Your task to perform on an android device: all mails in gmail Image 0: 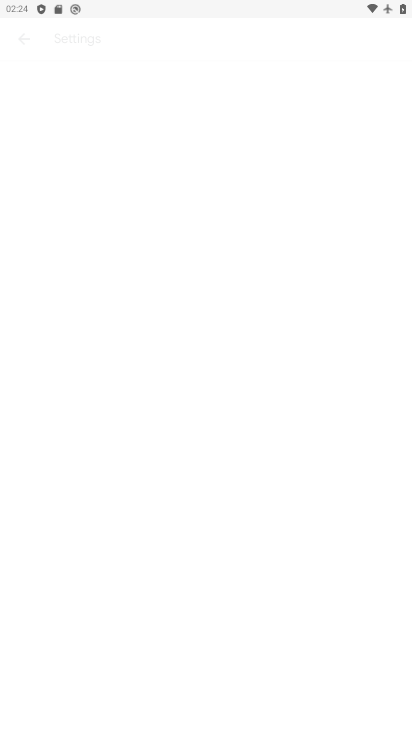
Step 0: drag from (212, 668) to (207, 414)
Your task to perform on an android device: all mails in gmail Image 1: 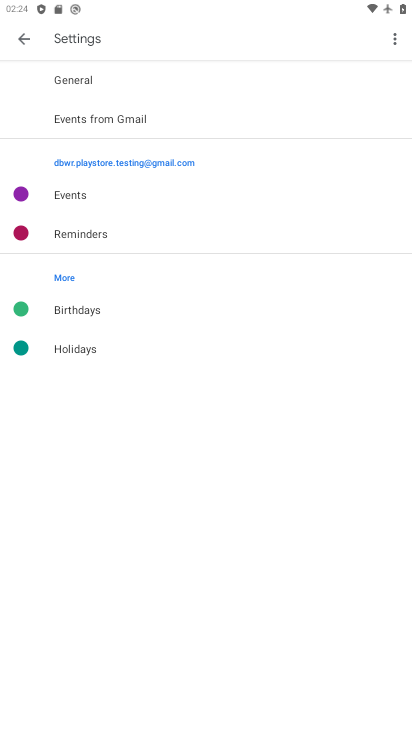
Step 1: press home button
Your task to perform on an android device: all mails in gmail Image 2: 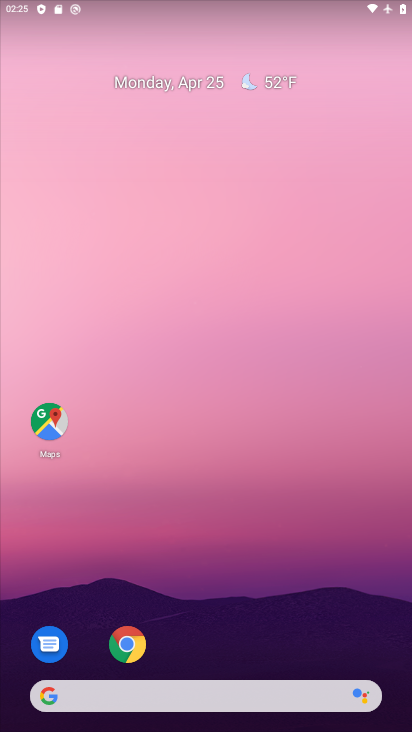
Step 2: drag from (252, 634) to (223, 38)
Your task to perform on an android device: all mails in gmail Image 3: 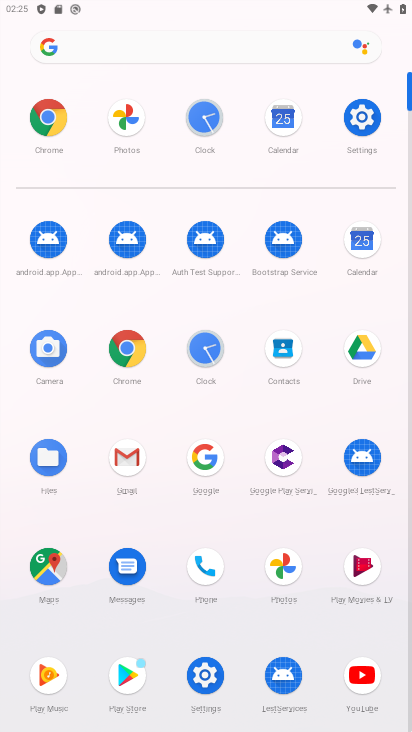
Step 3: click (119, 465)
Your task to perform on an android device: all mails in gmail Image 4: 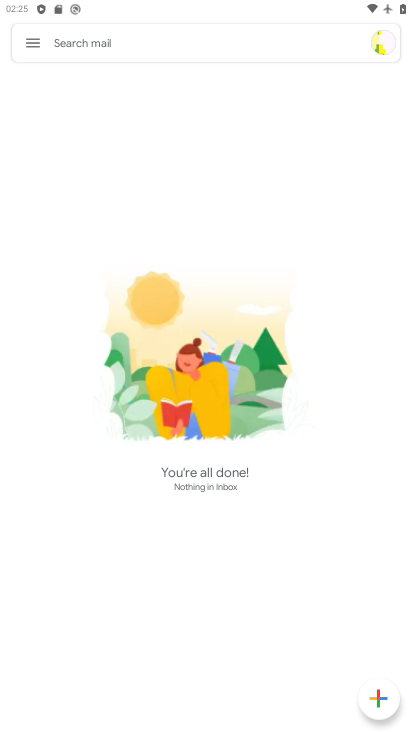
Step 4: click (36, 43)
Your task to perform on an android device: all mails in gmail Image 5: 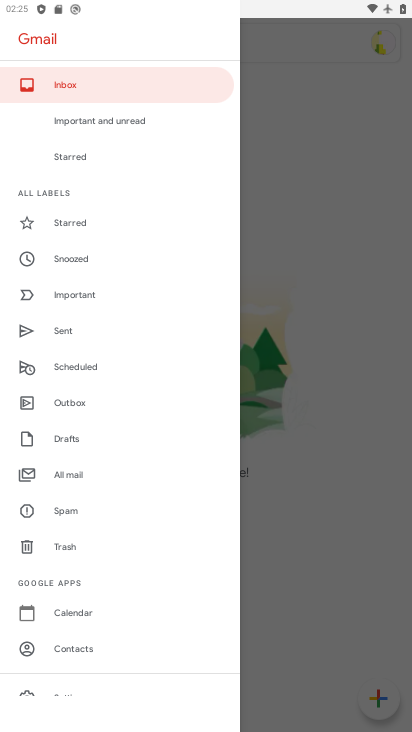
Step 5: click (79, 475)
Your task to perform on an android device: all mails in gmail Image 6: 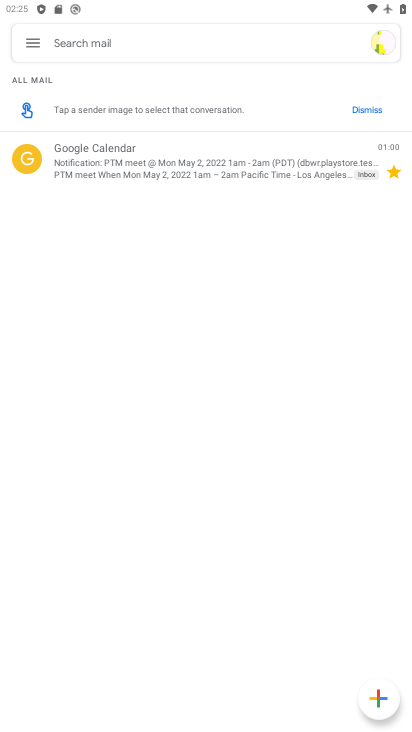
Step 6: task complete